Your task to perform on an android device: Open notification settings Image 0: 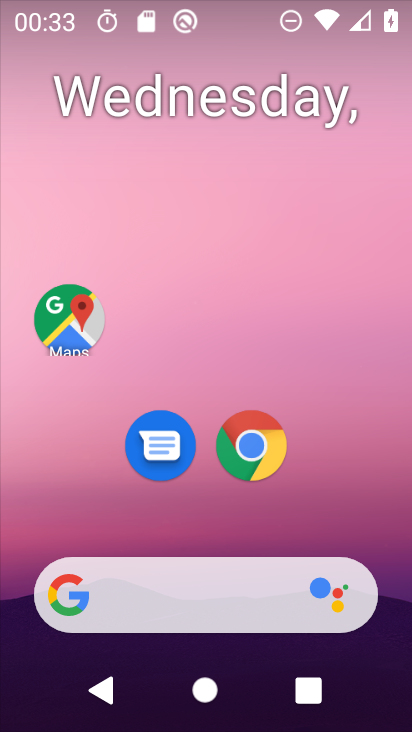
Step 0: drag from (205, 429) to (345, 0)
Your task to perform on an android device: Open notification settings Image 1: 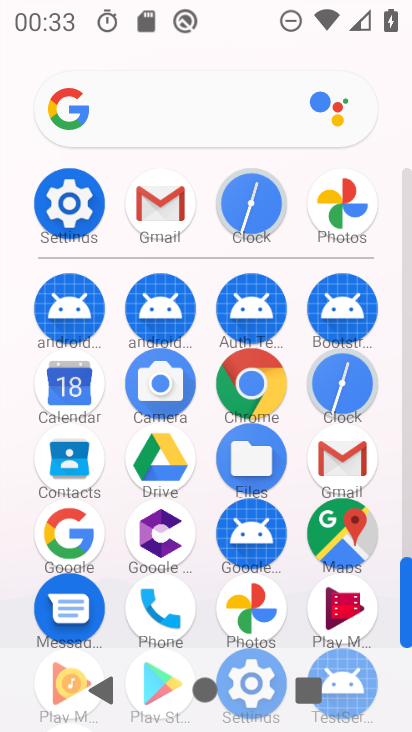
Step 1: click (65, 204)
Your task to perform on an android device: Open notification settings Image 2: 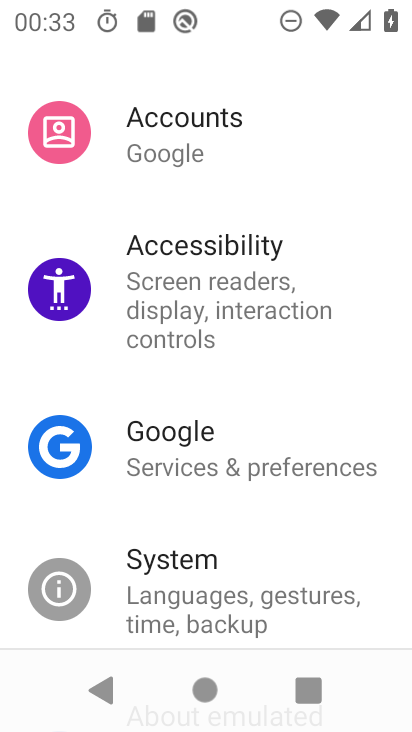
Step 2: drag from (246, 595) to (217, 207)
Your task to perform on an android device: Open notification settings Image 3: 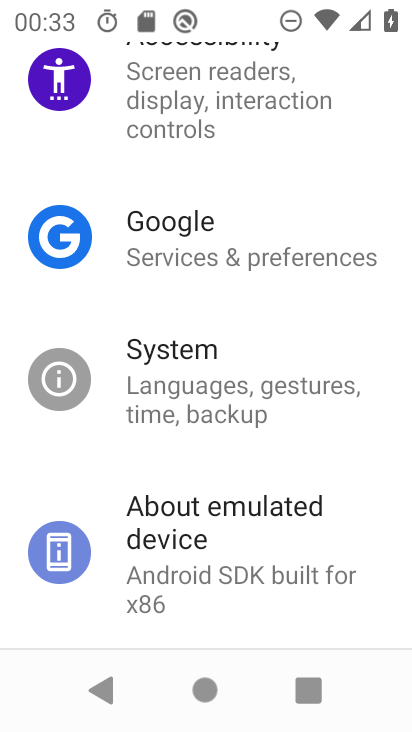
Step 3: drag from (201, 253) to (280, 682)
Your task to perform on an android device: Open notification settings Image 4: 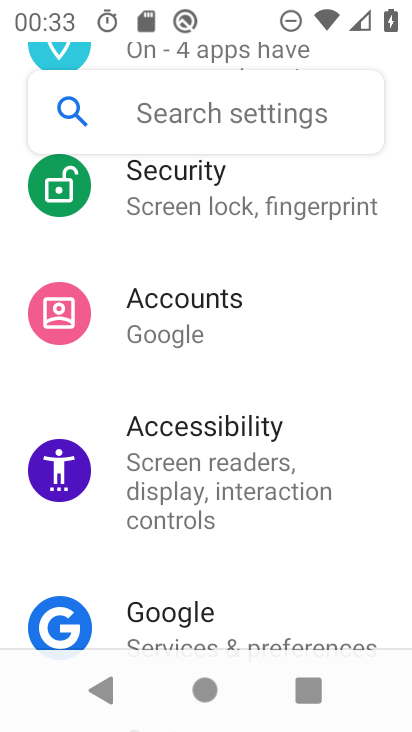
Step 4: drag from (228, 325) to (292, 617)
Your task to perform on an android device: Open notification settings Image 5: 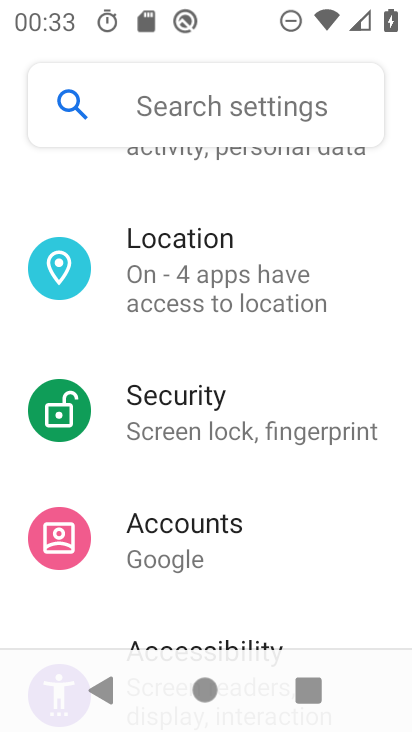
Step 5: drag from (227, 291) to (286, 591)
Your task to perform on an android device: Open notification settings Image 6: 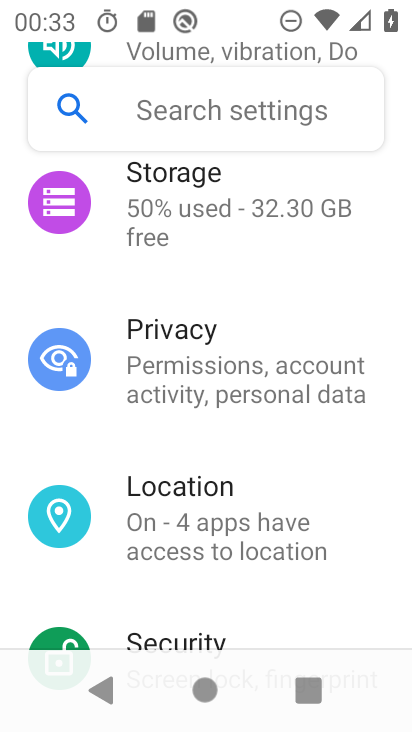
Step 6: drag from (245, 354) to (254, 712)
Your task to perform on an android device: Open notification settings Image 7: 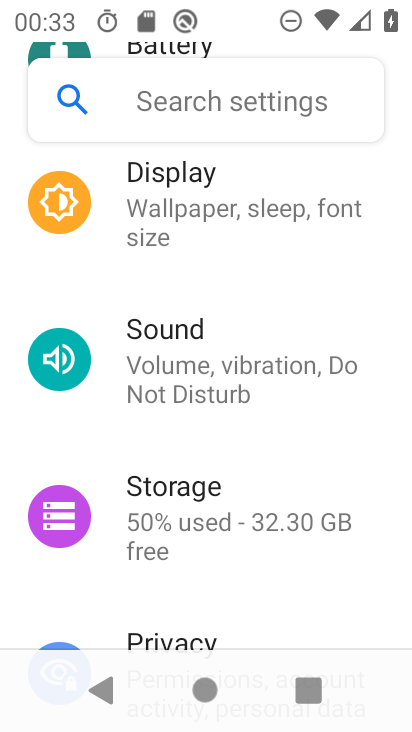
Step 7: drag from (248, 322) to (323, 719)
Your task to perform on an android device: Open notification settings Image 8: 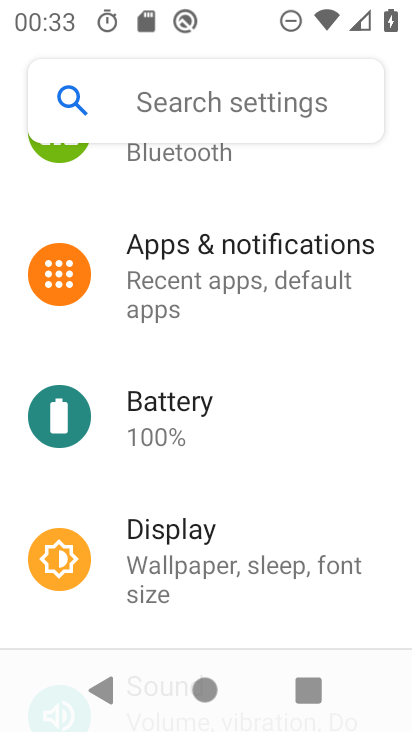
Step 8: click (208, 284)
Your task to perform on an android device: Open notification settings Image 9: 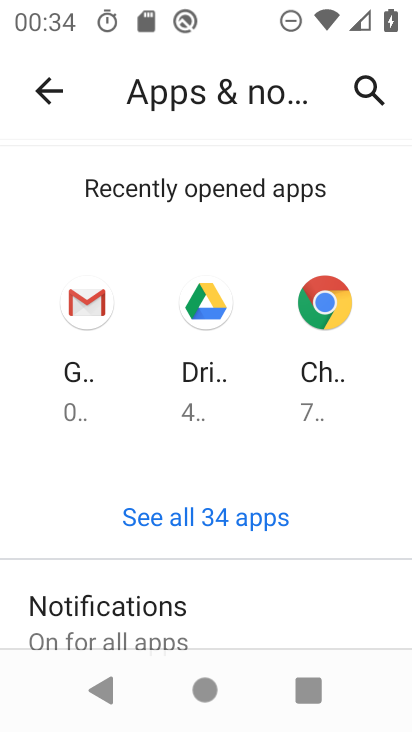
Step 9: click (251, 590)
Your task to perform on an android device: Open notification settings Image 10: 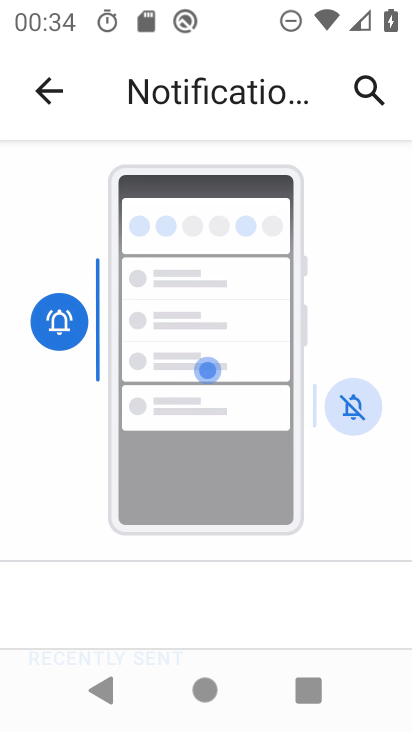
Step 10: task complete